Your task to perform on an android device: turn pop-ups on in chrome Image 0: 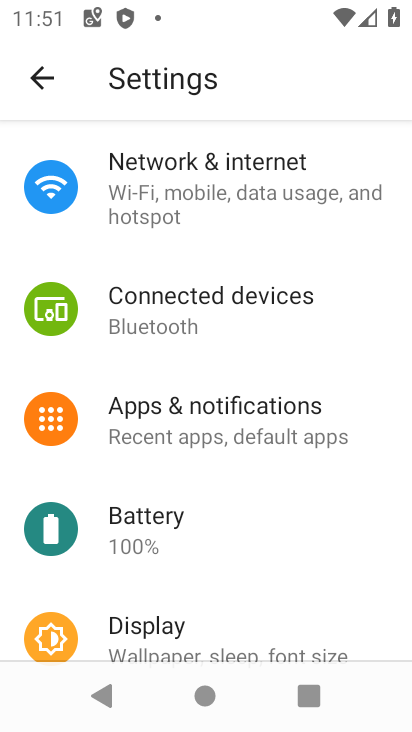
Step 0: press back button
Your task to perform on an android device: turn pop-ups on in chrome Image 1: 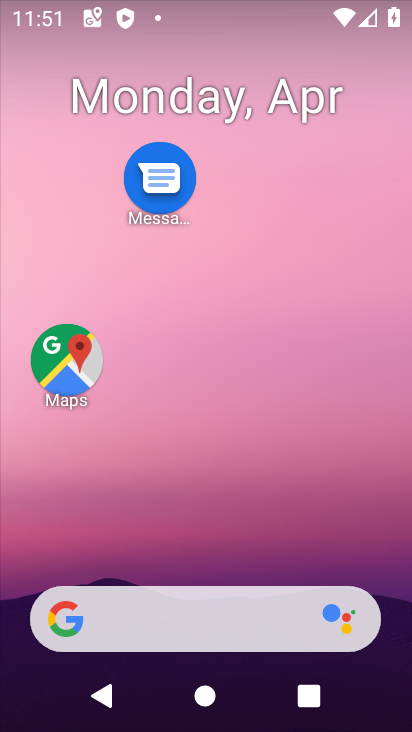
Step 1: drag from (207, 723) to (195, 162)
Your task to perform on an android device: turn pop-ups on in chrome Image 2: 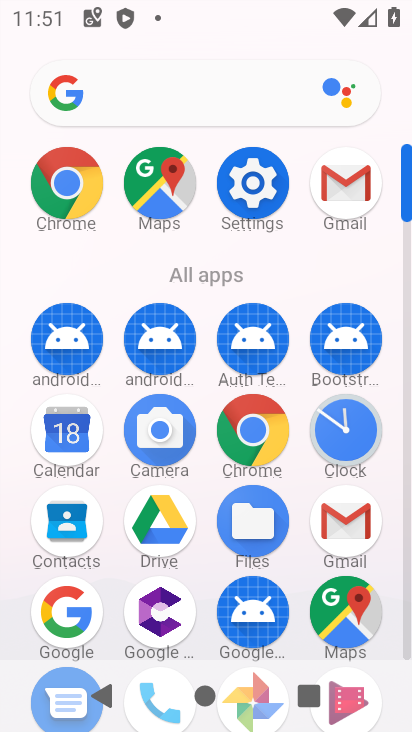
Step 2: click (255, 427)
Your task to perform on an android device: turn pop-ups on in chrome Image 3: 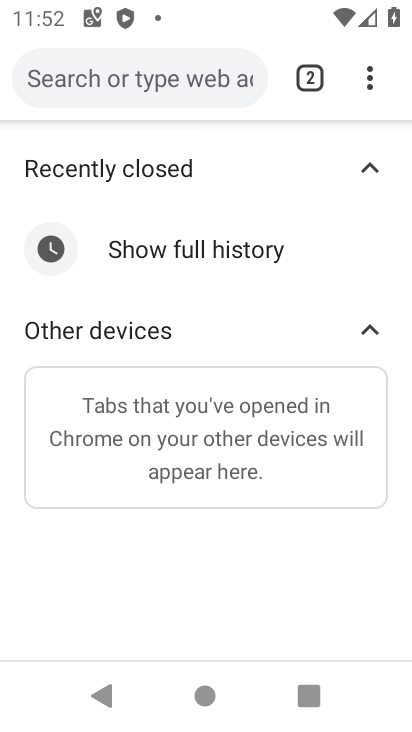
Step 3: click (369, 78)
Your task to perform on an android device: turn pop-ups on in chrome Image 4: 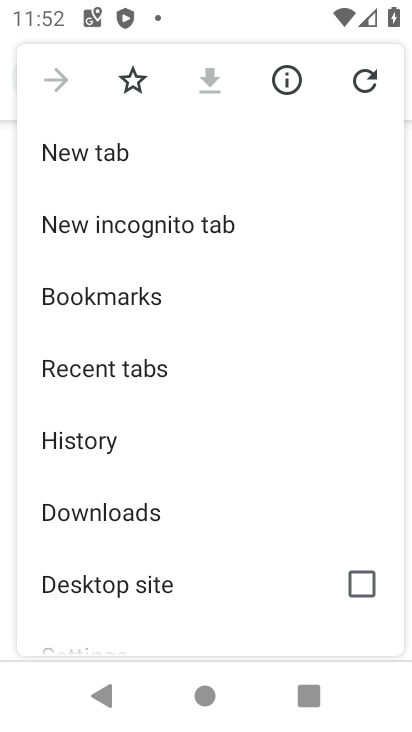
Step 4: drag from (130, 595) to (130, 72)
Your task to perform on an android device: turn pop-ups on in chrome Image 5: 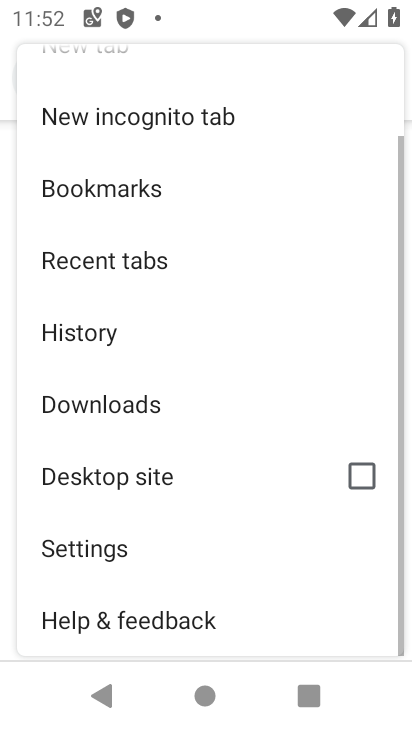
Step 5: click (98, 549)
Your task to perform on an android device: turn pop-ups on in chrome Image 6: 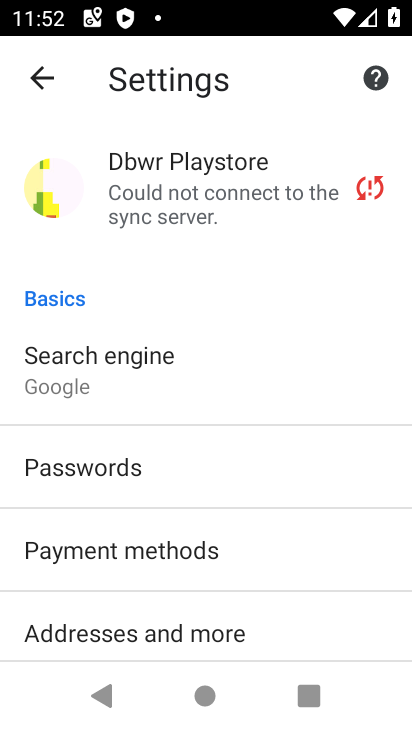
Step 6: drag from (130, 608) to (142, 101)
Your task to perform on an android device: turn pop-ups on in chrome Image 7: 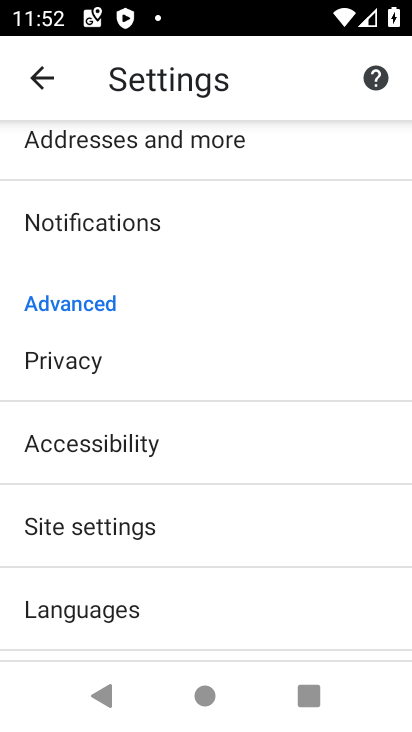
Step 7: click (86, 530)
Your task to perform on an android device: turn pop-ups on in chrome Image 8: 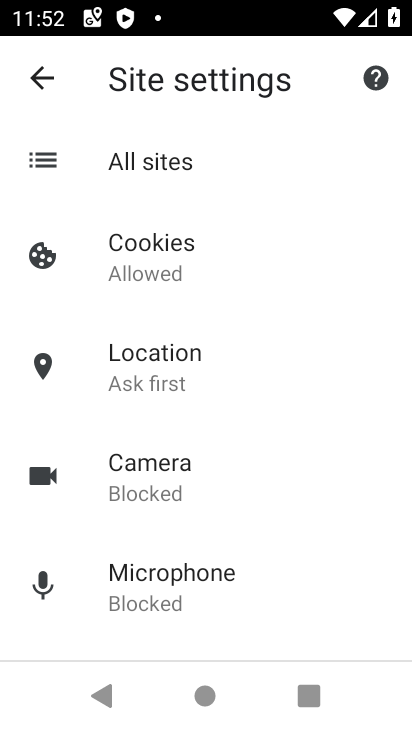
Step 8: drag from (241, 618) to (251, 154)
Your task to perform on an android device: turn pop-ups on in chrome Image 9: 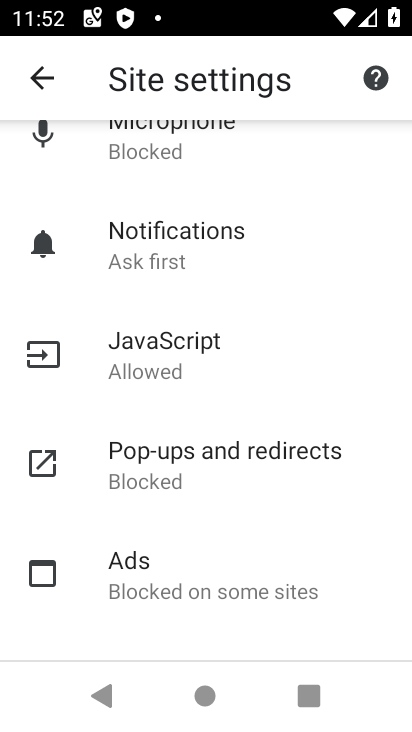
Step 9: click (160, 465)
Your task to perform on an android device: turn pop-ups on in chrome Image 10: 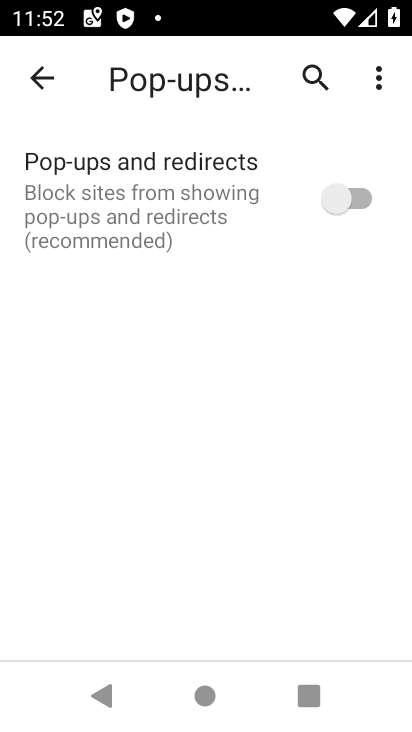
Step 10: click (362, 191)
Your task to perform on an android device: turn pop-ups on in chrome Image 11: 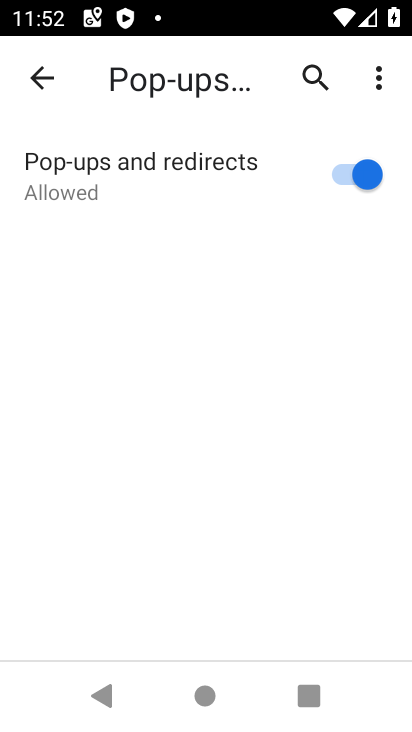
Step 11: task complete